Your task to perform on an android device: clear history in the chrome app Image 0: 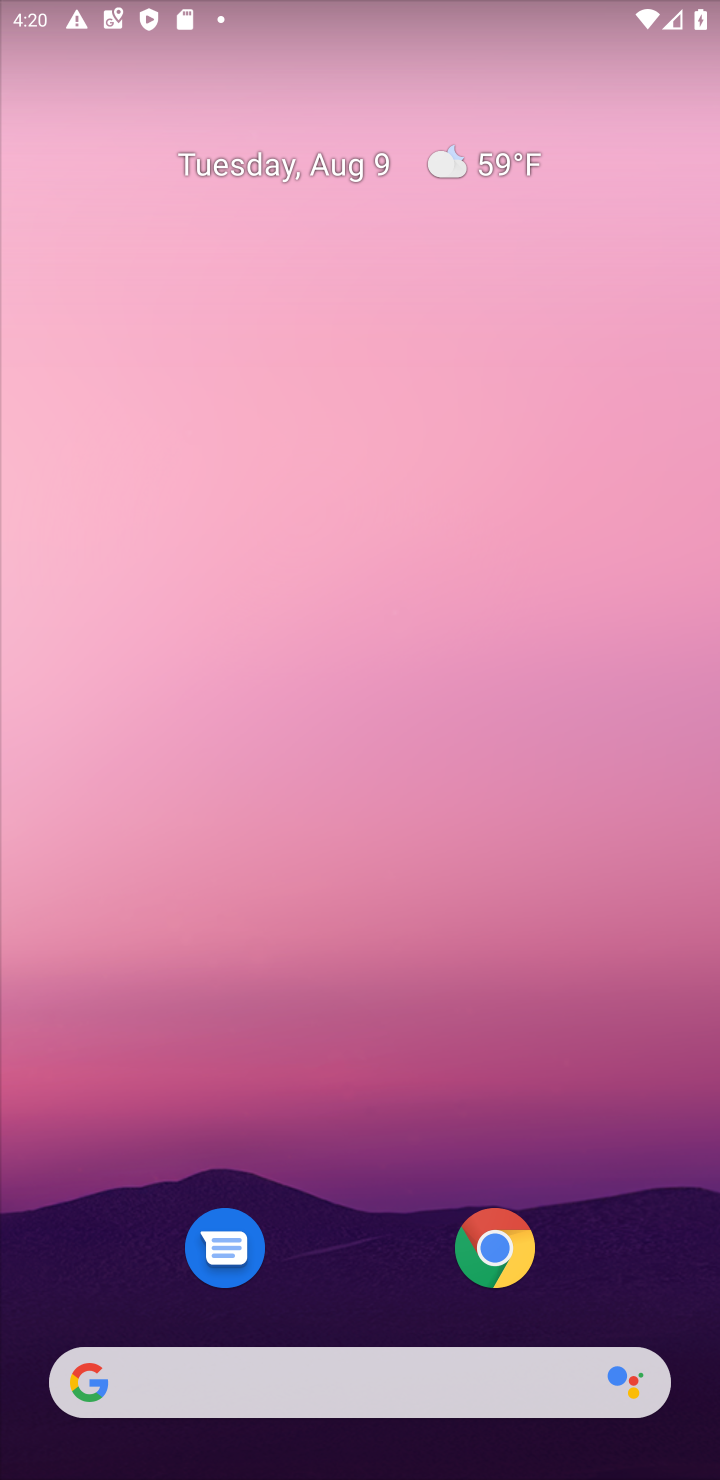
Step 0: drag from (342, 1192) to (494, 466)
Your task to perform on an android device: clear history in the chrome app Image 1: 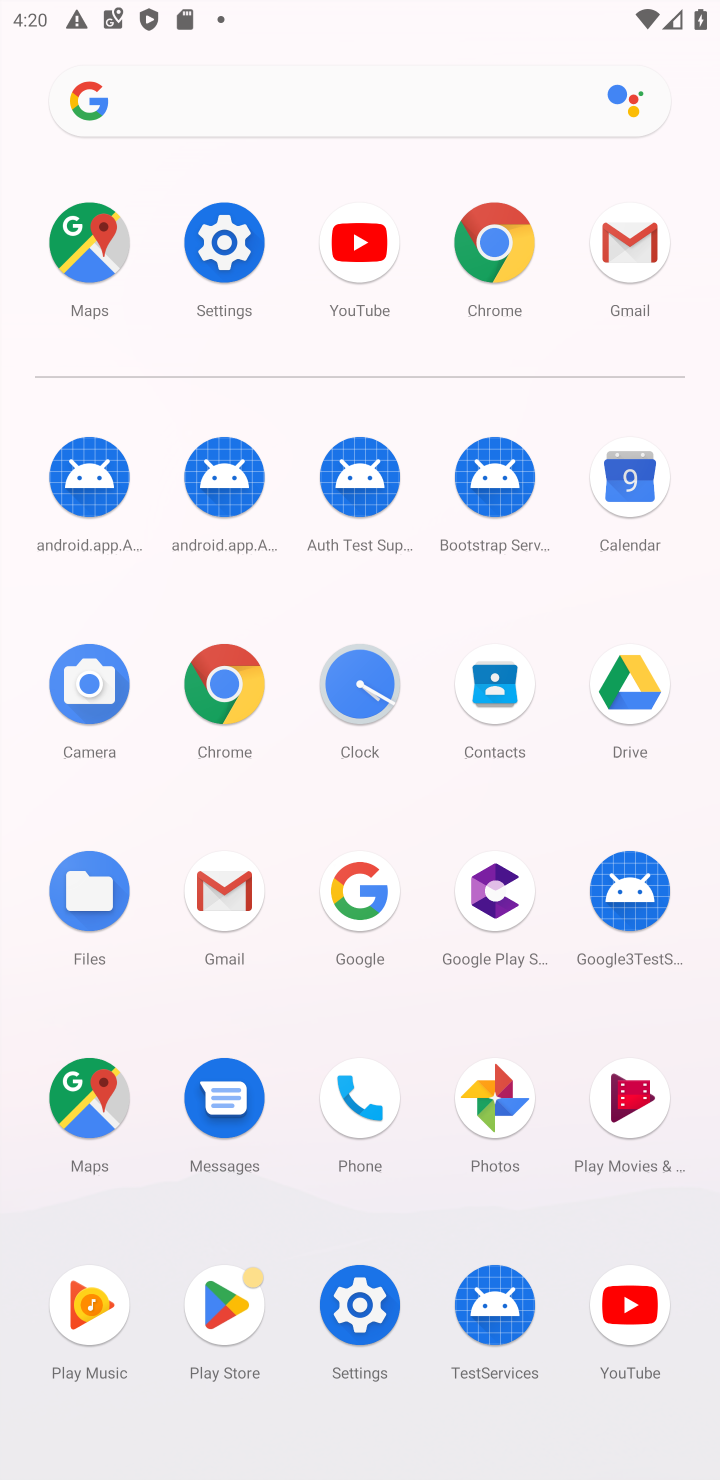
Step 1: click (225, 690)
Your task to perform on an android device: clear history in the chrome app Image 2: 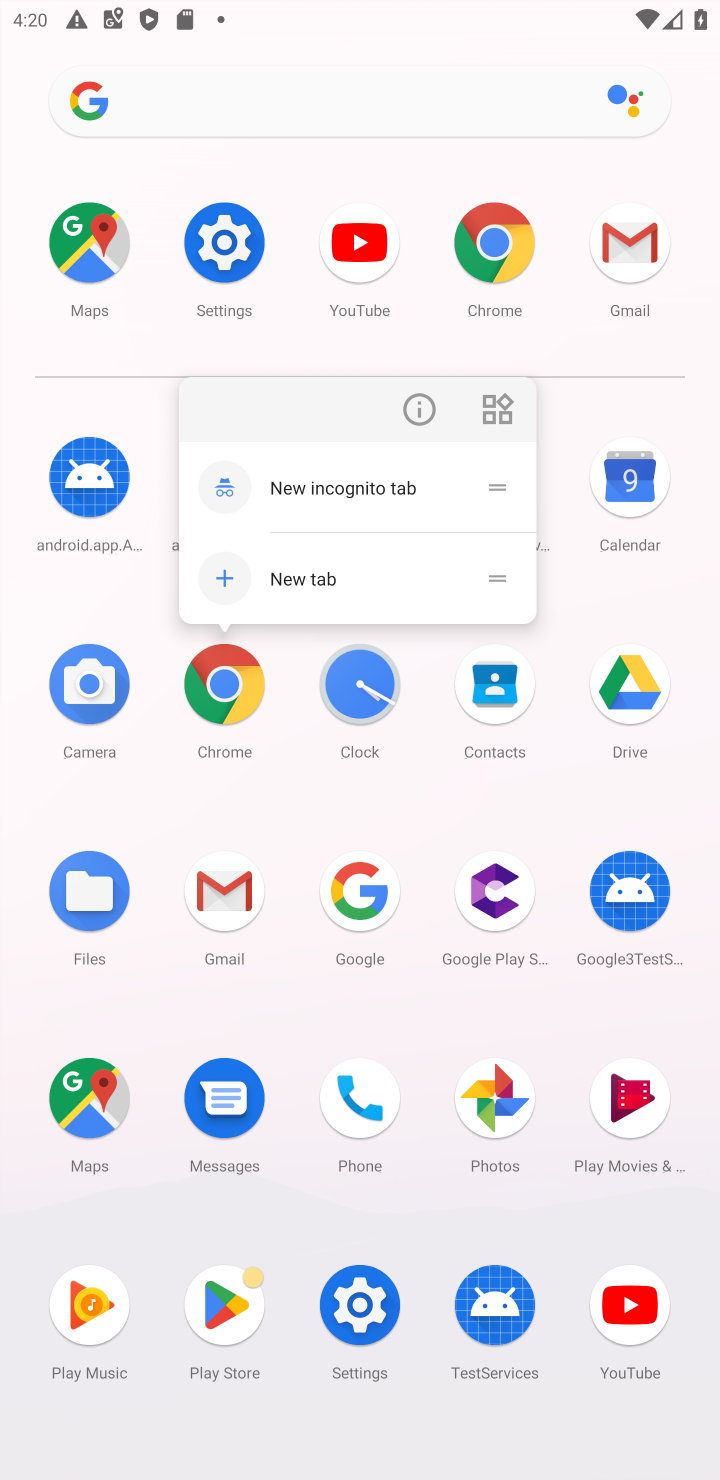
Step 2: click (225, 688)
Your task to perform on an android device: clear history in the chrome app Image 3: 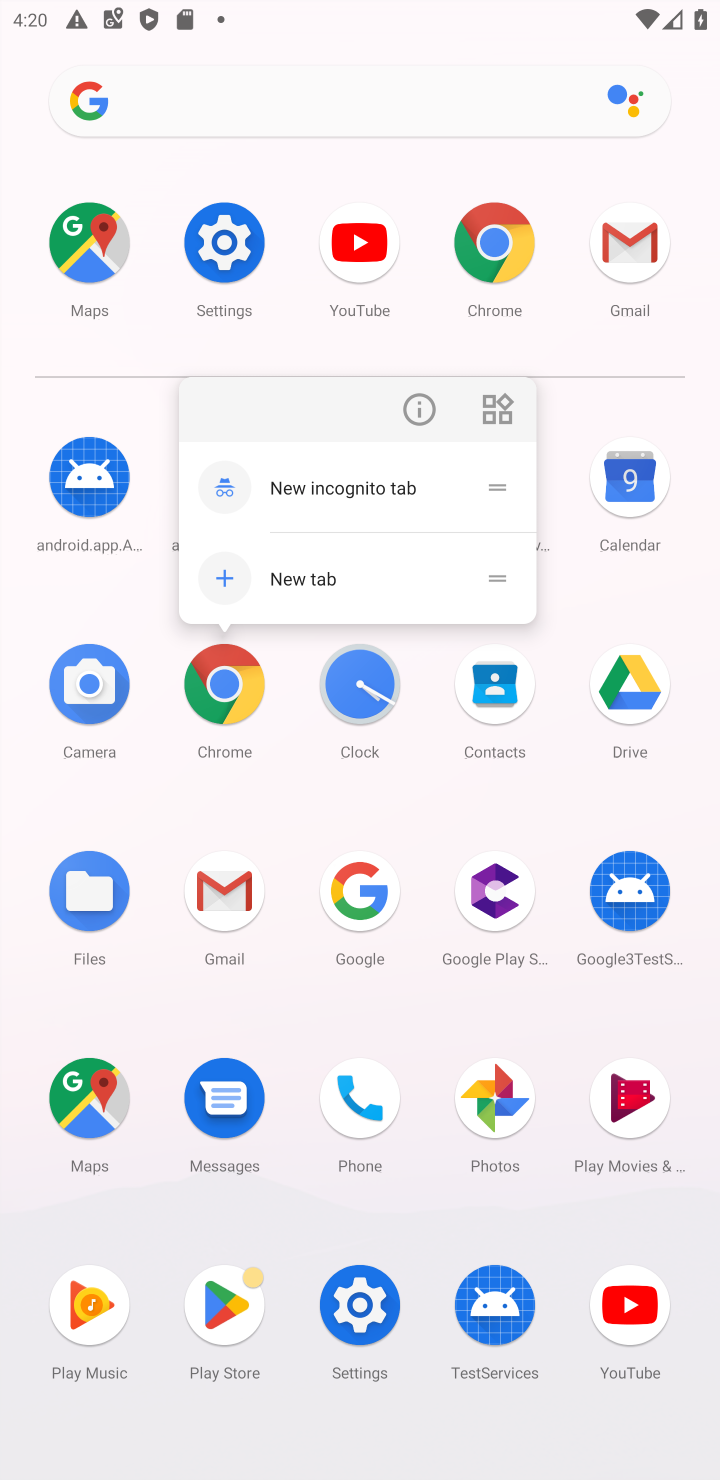
Step 3: click (225, 685)
Your task to perform on an android device: clear history in the chrome app Image 4: 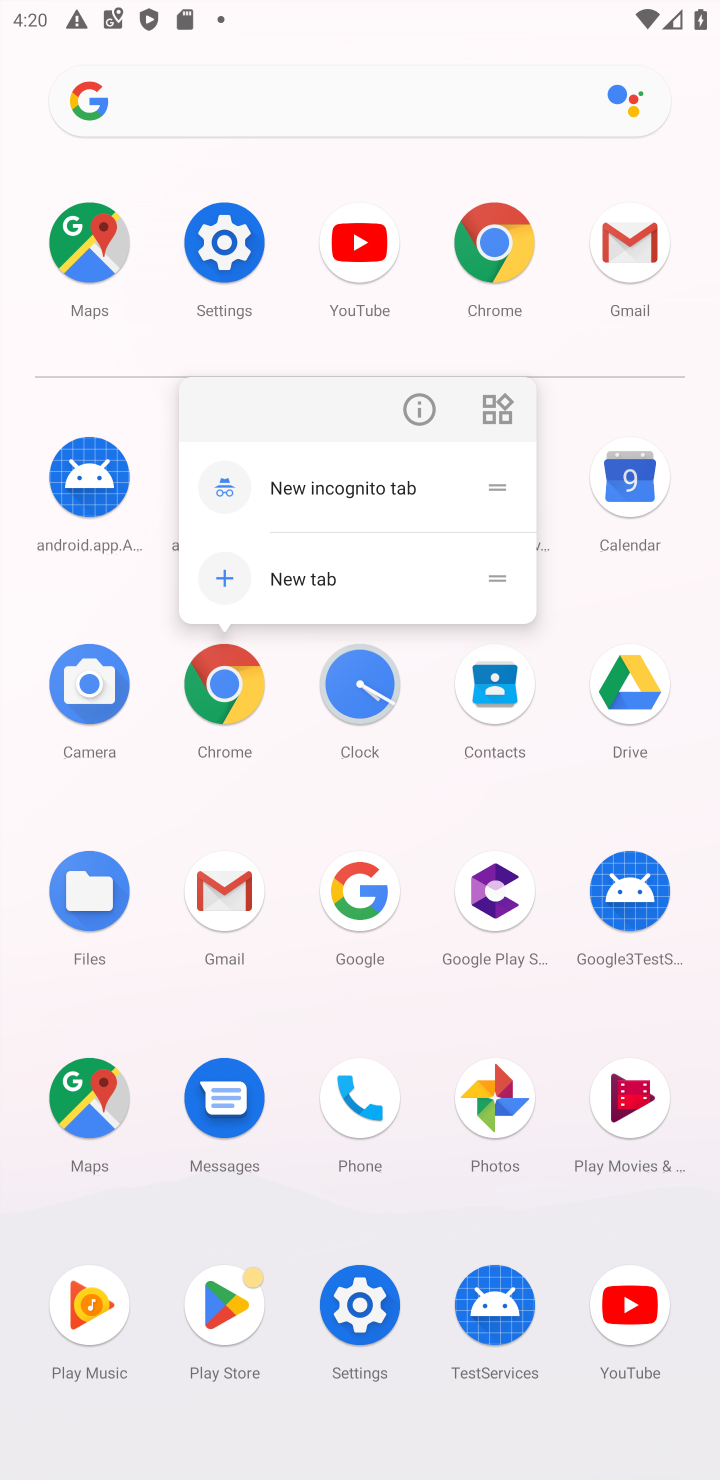
Step 4: click (223, 669)
Your task to perform on an android device: clear history in the chrome app Image 5: 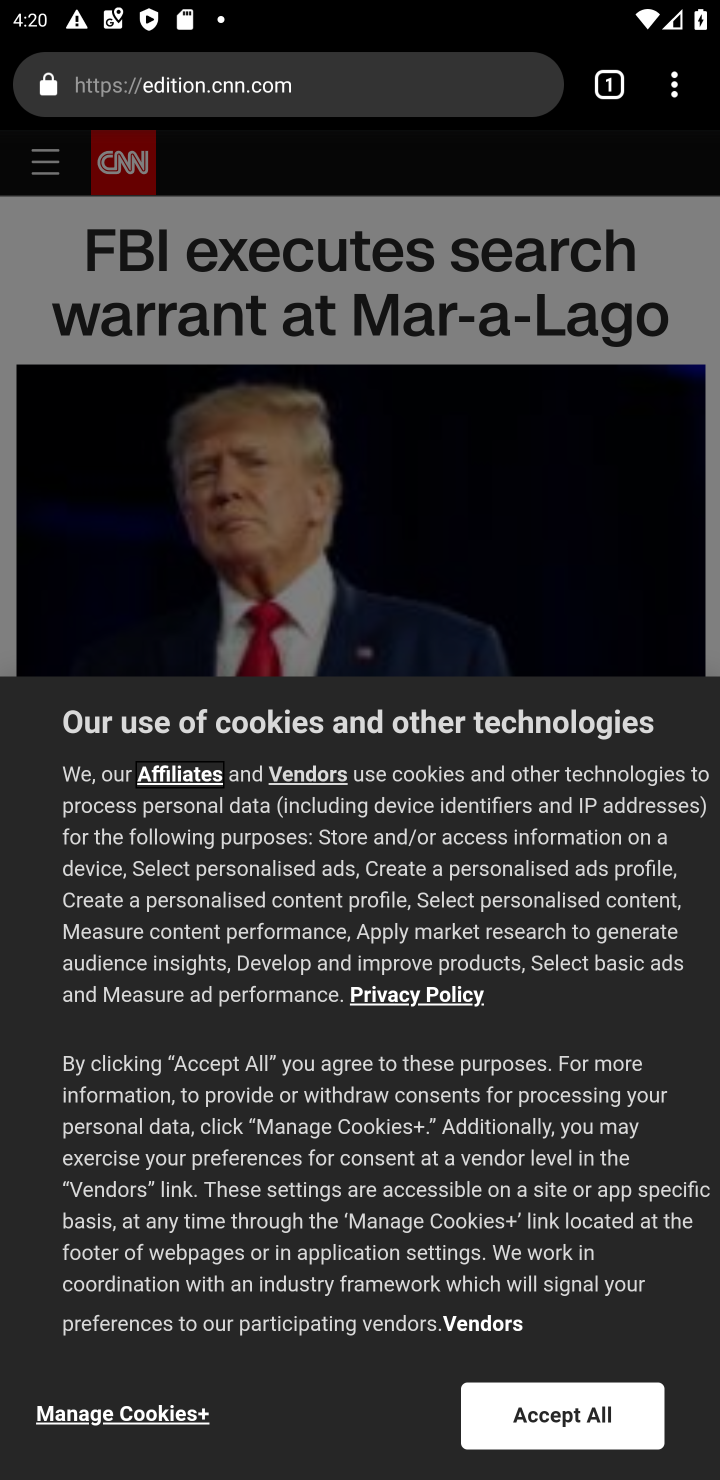
Step 5: drag from (682, 62) to (359, 568)
Your task to perform on an android device: clear history in the chrome app Image 6: 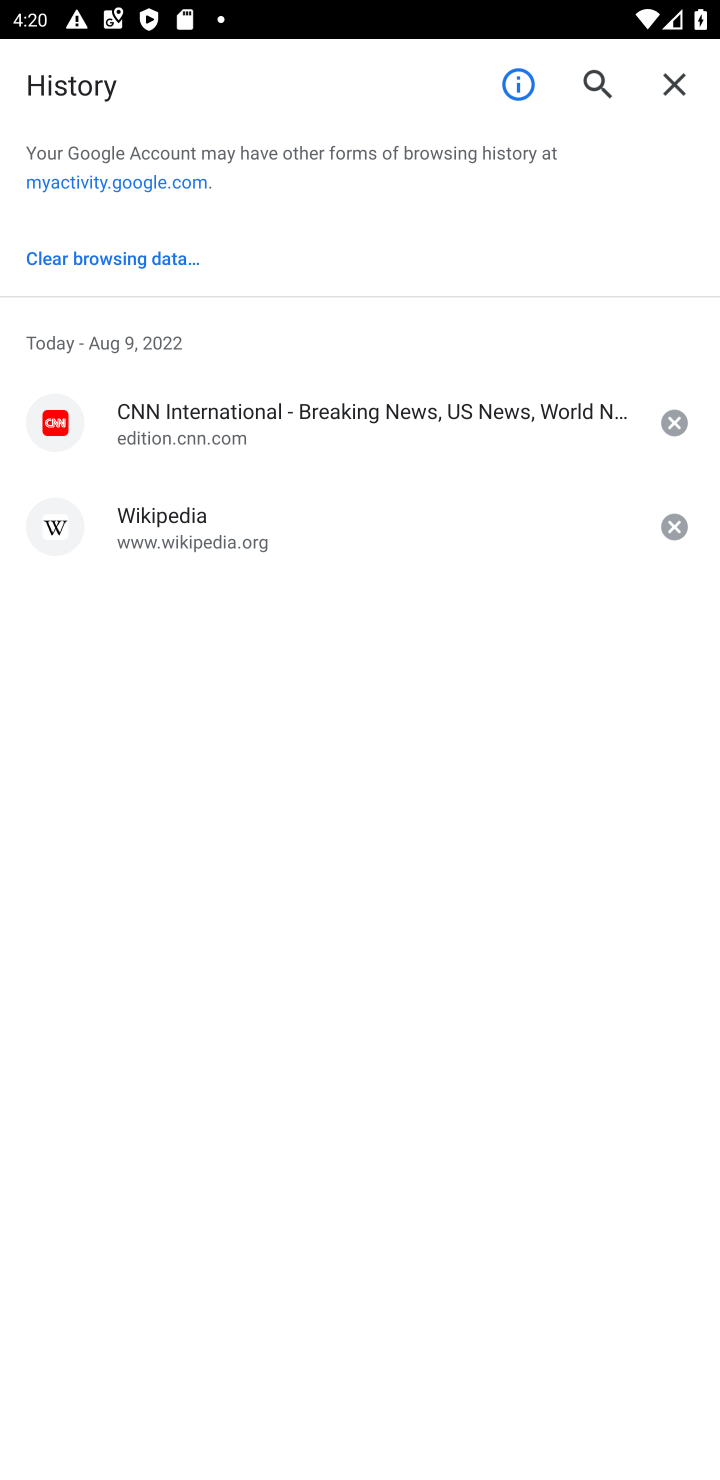
Step 6: click (147, 250)
Your task to perform on an android device: clear history in the chrome app Image 7: 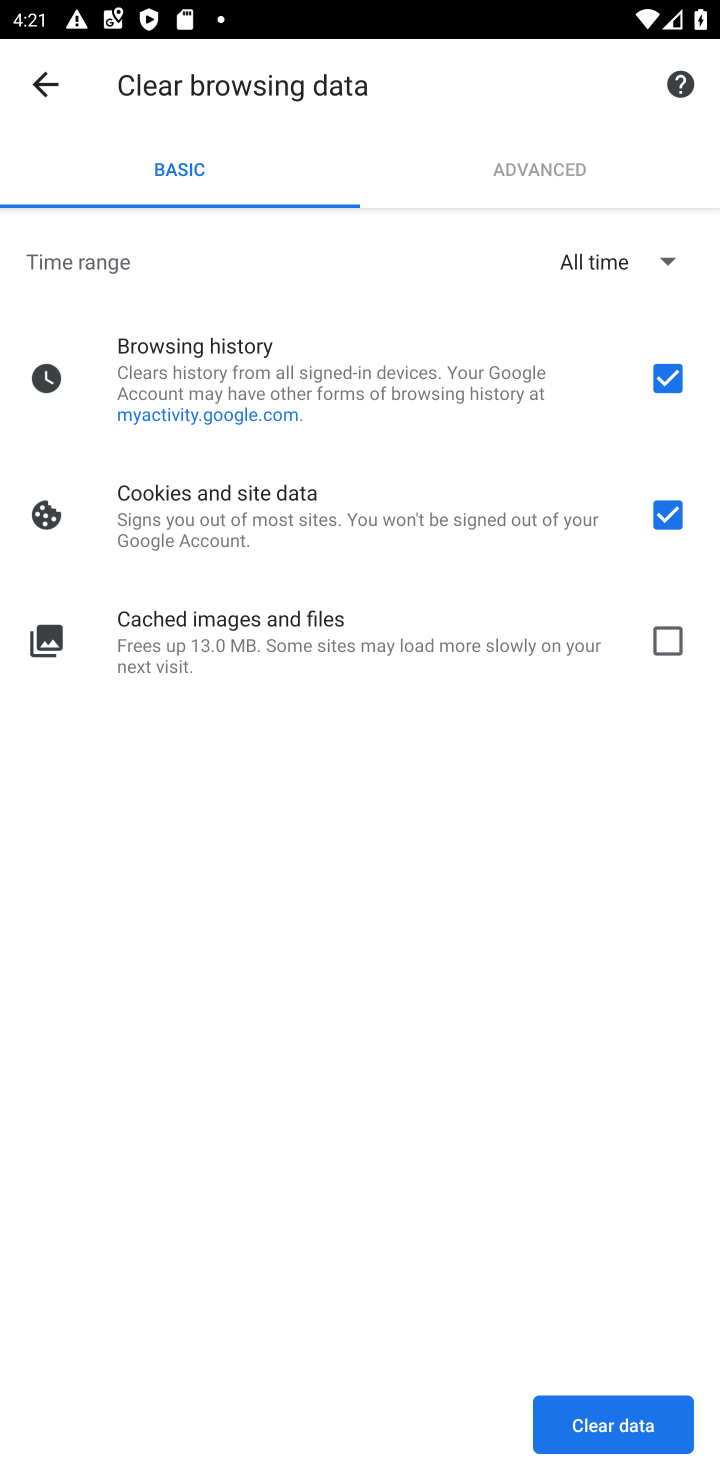
Step 7: click (633, 1421)
Your task to perform on an android device: clear history in the chrome app Image 8: 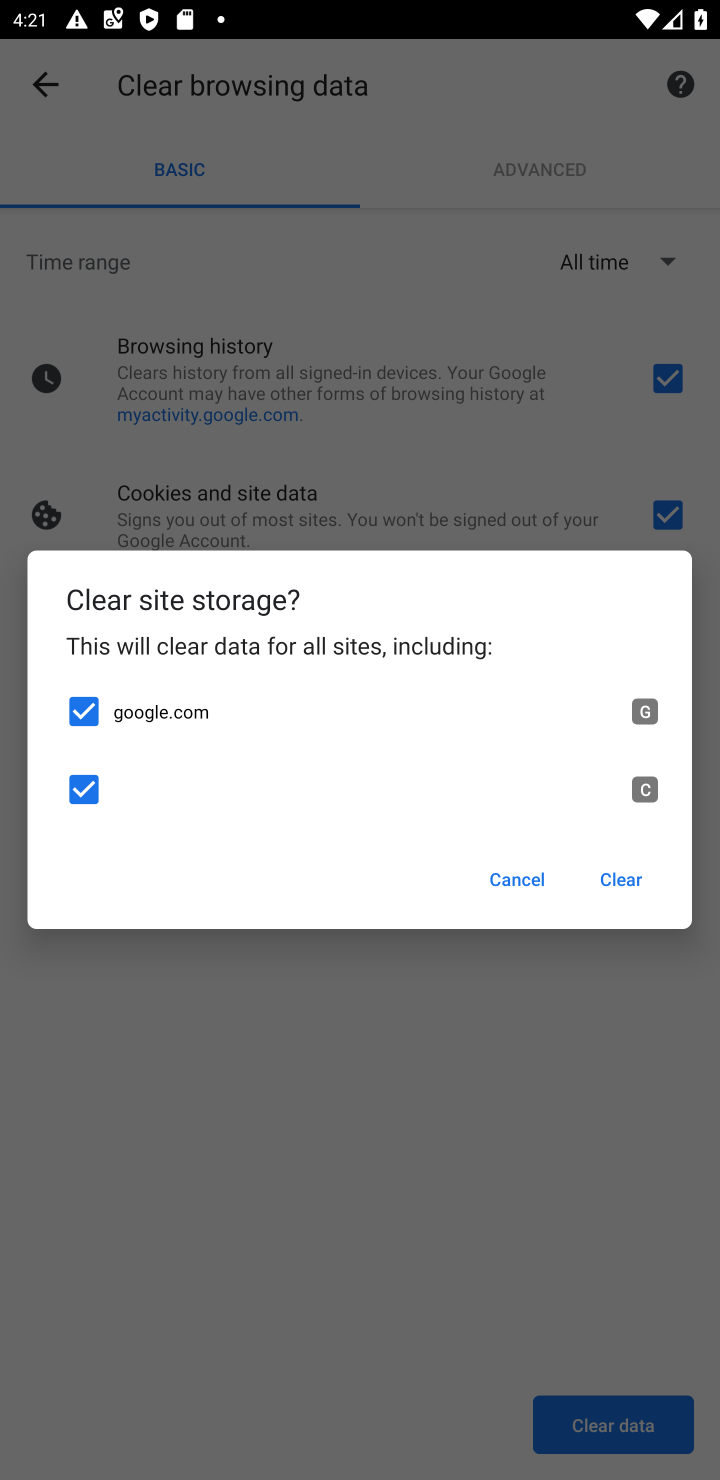
Step 8: click (640, 858)
Your task to perform on an android device: clear history in the chrome app Image 9: 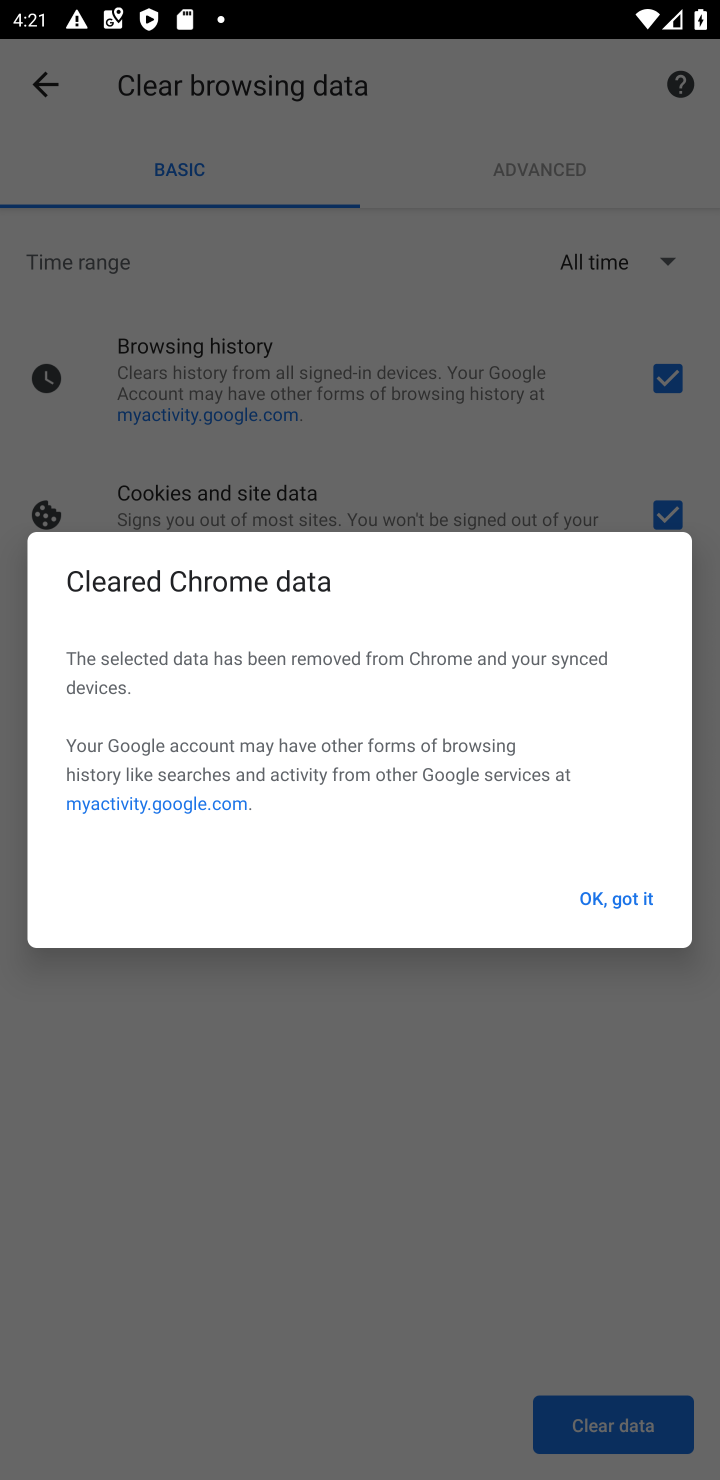
Step 9: click (605, 899)
Your task to perform on an android device: clear history in the chrome app Image 10: 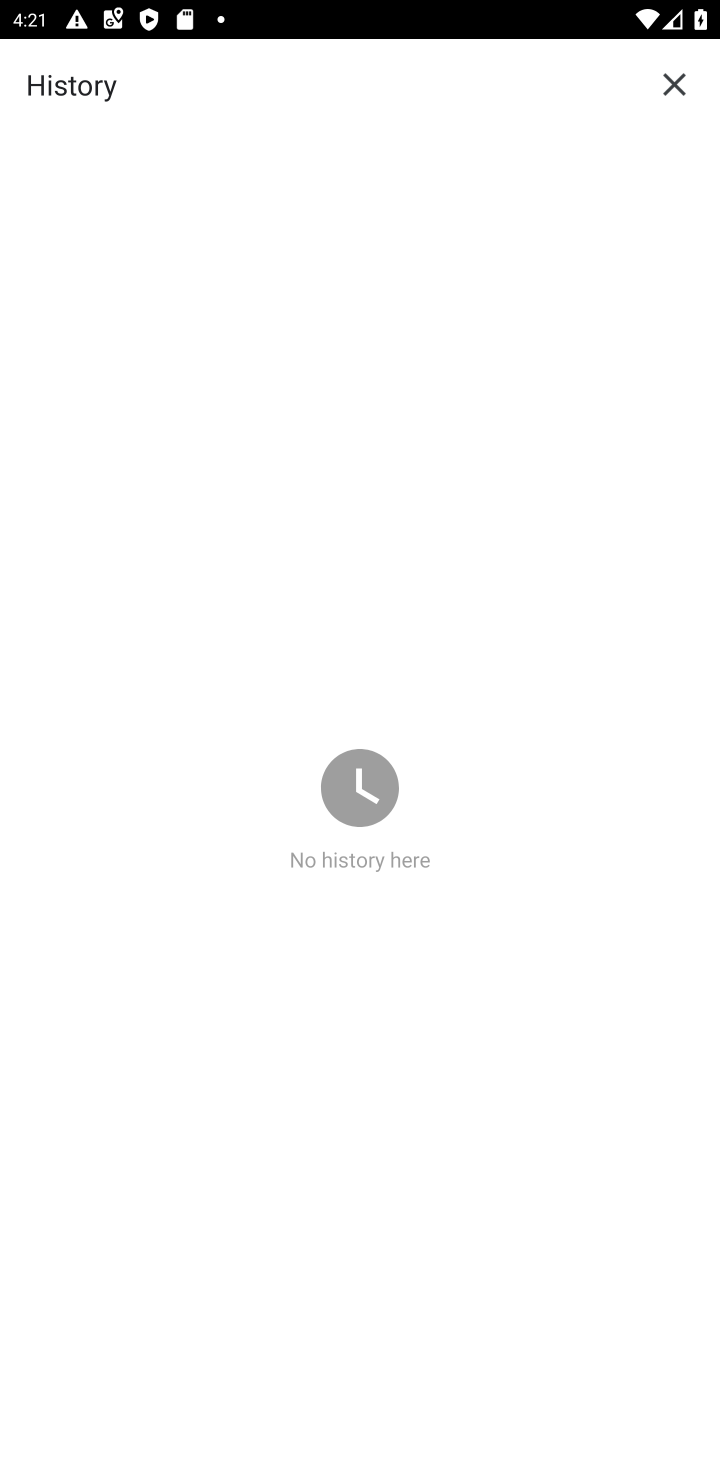
Step 10: task complete